Your task to perform on an android device: check android version Image 0: 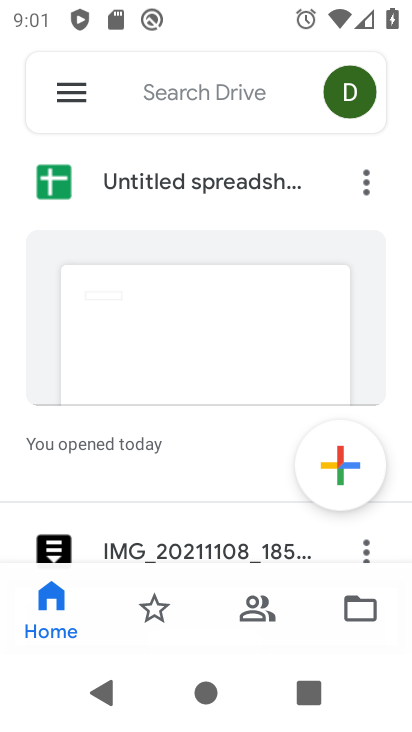
Step 0: drag from (182, 514) to (337, 173)
Your task to perform on an android device: check android version Image 1: 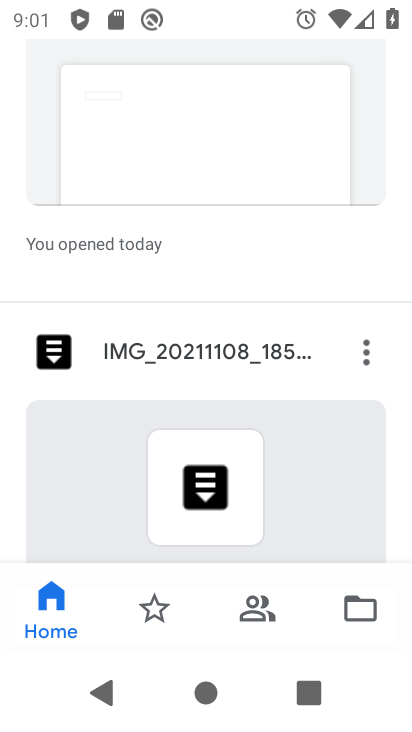
Step 1: drag from (236, 430) to (332, 114)
Your task to perform on an android device: check android version Image 2: 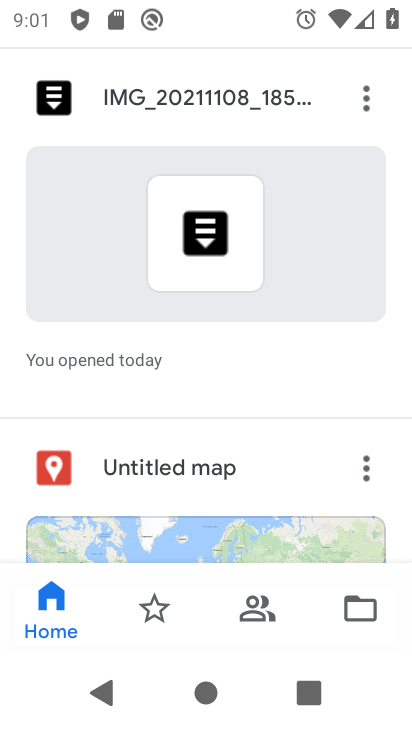
Step 2: drag from (236, 513) to (341, 164)
Your task to perform on an android device: check android version Image 3: 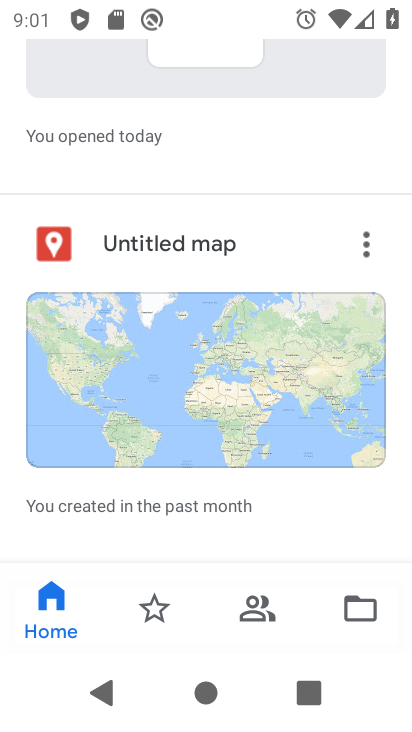
Step 3: drag from (289, 291) to (319, 719)
Your task to perform on an android device: check android version Image 4: 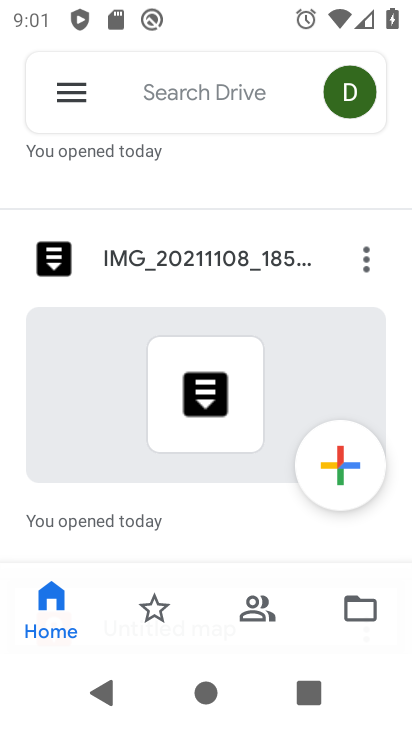
Step 4: drag from (194, 221) to (300, 726)
Your task to perform on an android device: check android version Image 5: 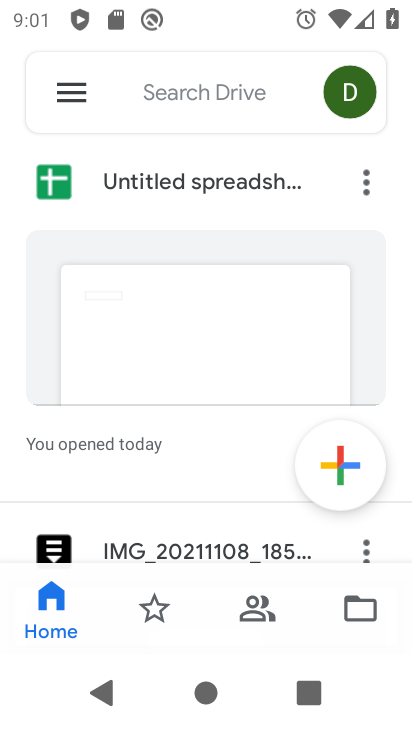
Step 5: press home button
Your task to perform on an android device: check android version Image 6: 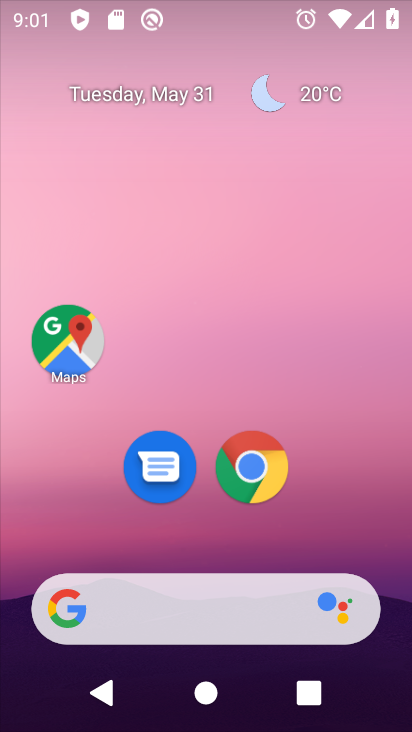
Step 6: drag from (181, 486) to (222, 7)
Your task to perform on an android device: check android version Image 7: 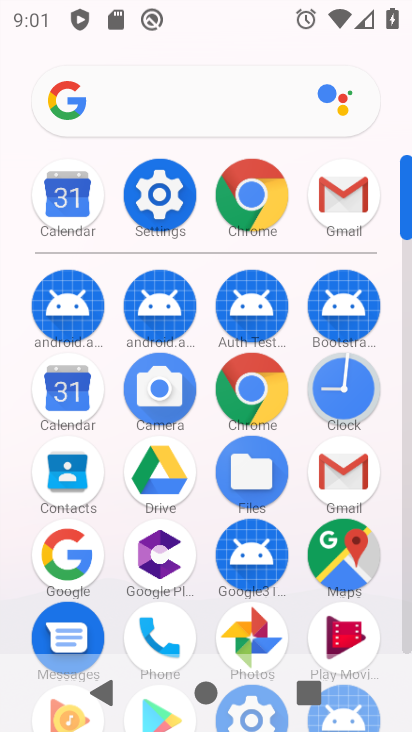
Step 7: click (156, 185)
Your task to perform on an android device: check android version Image 8: 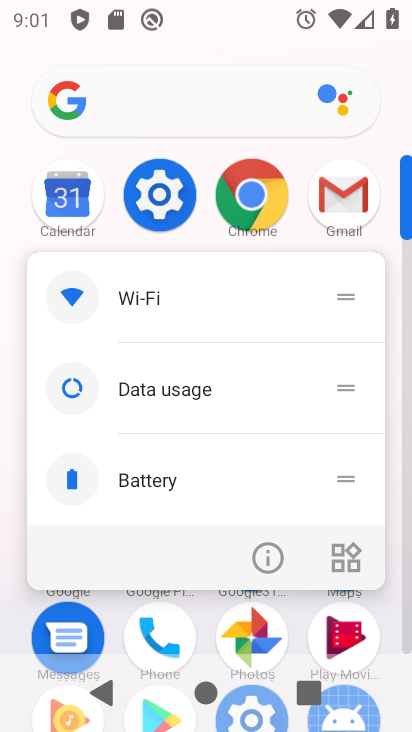
Step 8: click (260, 555)
Your task to perform on an android device: check android version Image 9: 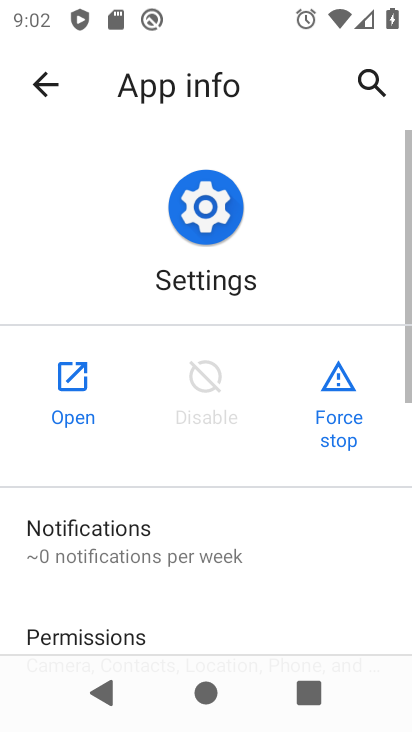
Step 9: click (73, 384)
Your task to perform on an android device: check android version Image 10: 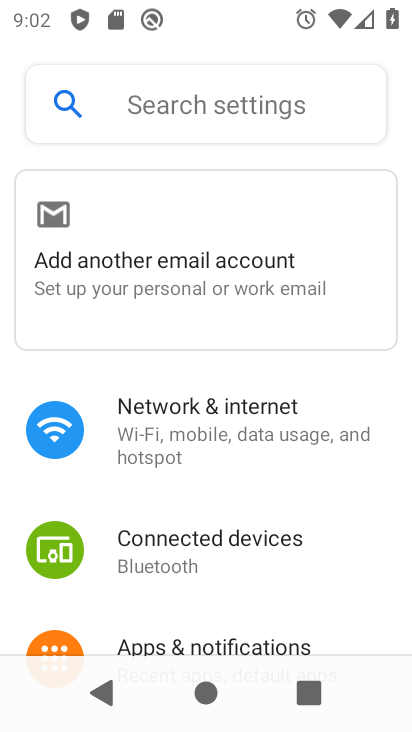
Step 10: drag from (234, 487) to (386, 240)
Your task to perform on an android device: check android version Image 11: 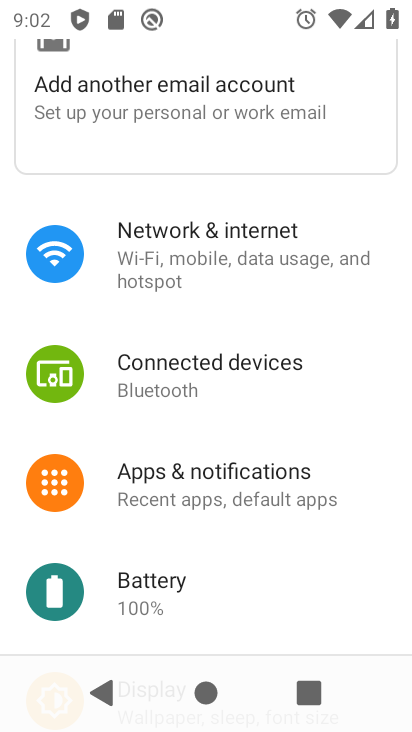
Step 11: drag from (188, 614) to (319, 138)
Your task to perform on an android device: check android version Image 12: 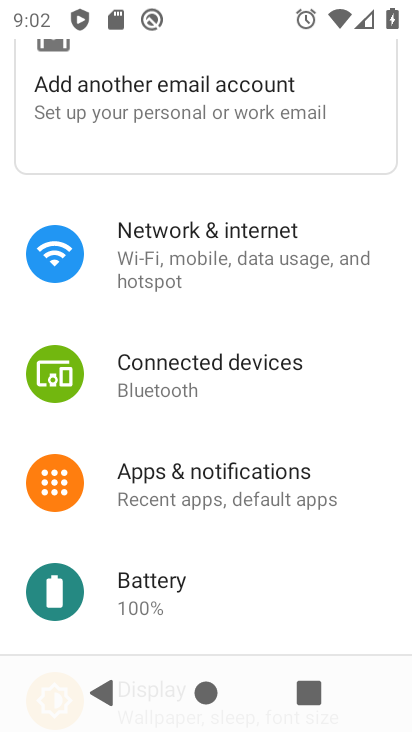
Step 12: drag from (223, 565) to (268, 24)
Your task to perform on an android device: check android version Image 13: 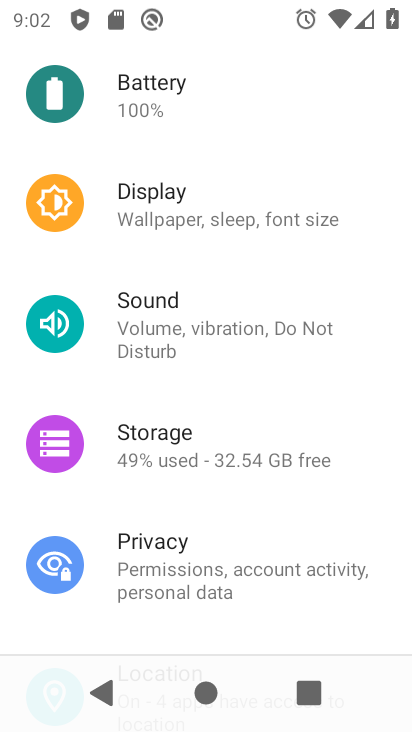
Step 13: drag from (211, 580) to (229, 54)
Your task to perform on an android device: check android version Image 14: 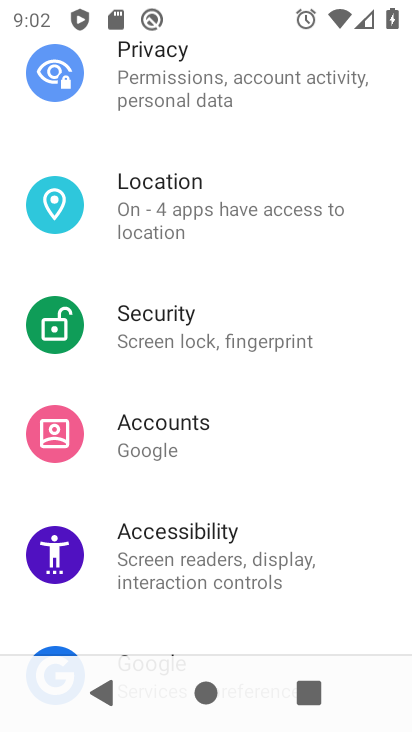
Step 14: drag from (203, 548) to (232, 149)
Your task to perform on an android device: check android version Image 15: 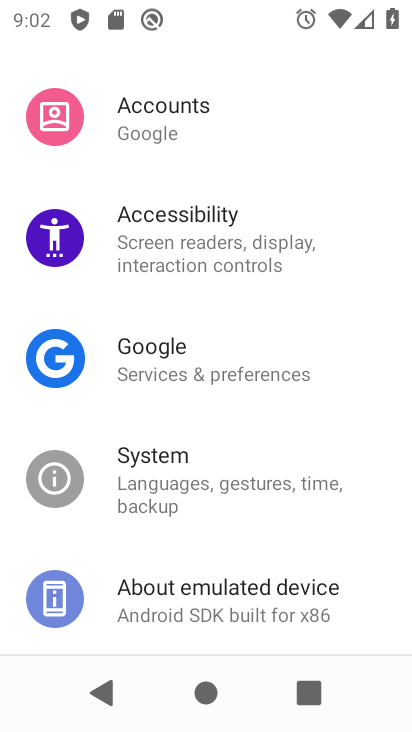
Step 15: click (198, 577)
Your task to perform on an android device: check android version Image 16: 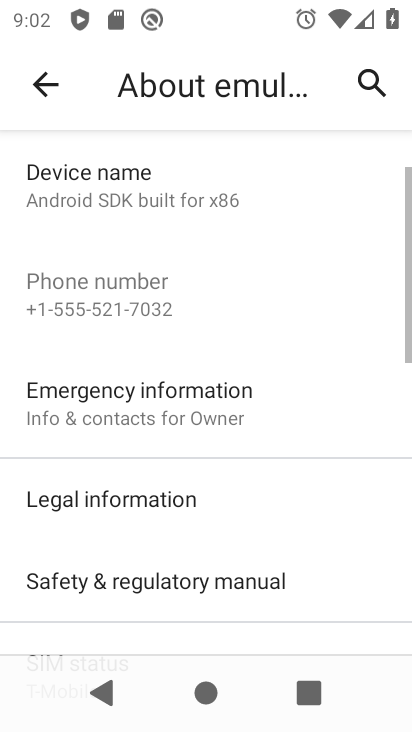
Step 16: drag from (169, 553) to (284, 19)
Your task to perform on an android device: check android version Image 17: 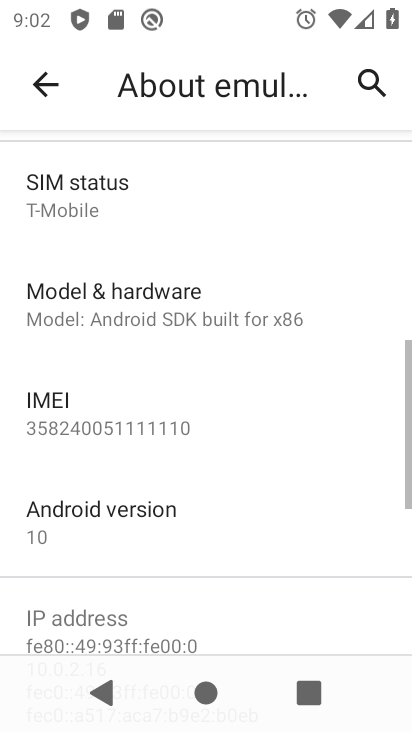
Step 17: click (153, 526)
Your task to perform on an android device: check android version Image 18: 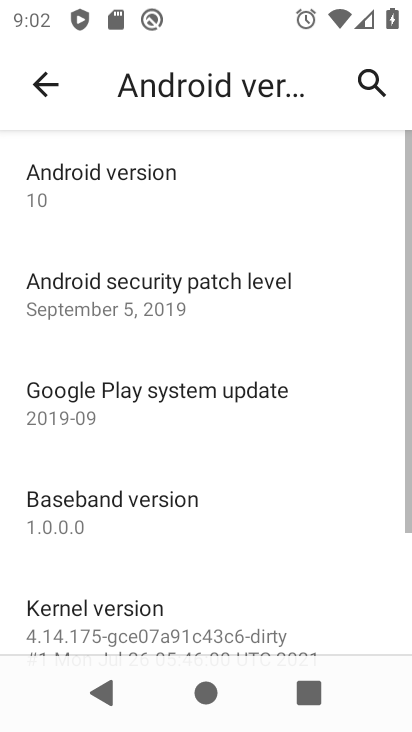
Step 18: drag from (184, 438) to (264, 214)
Your task to perform on an android device: check android version Image 19: 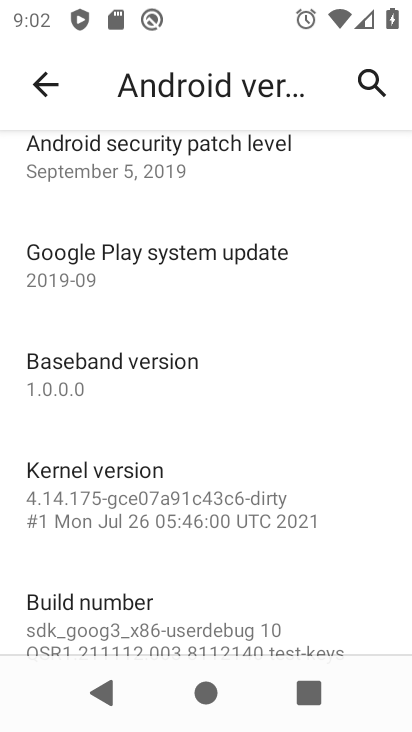
Step 19: drag from (253, 191) to (345, 653)
Your task to perform on an android device: check android version Image 20: 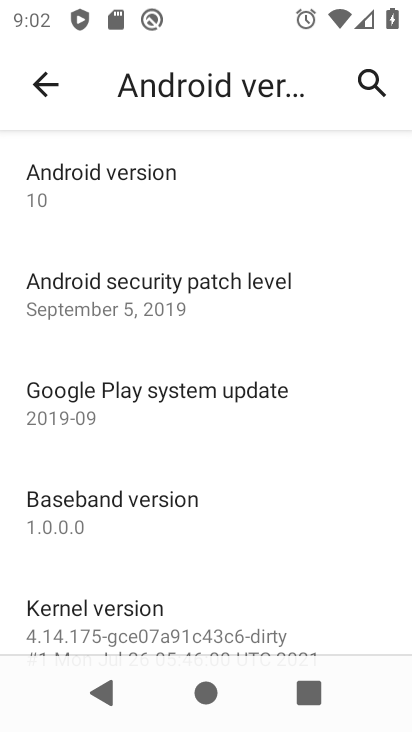
Step 20: click (188, 204)
Your task to perform on an android device: check android version Image 21: 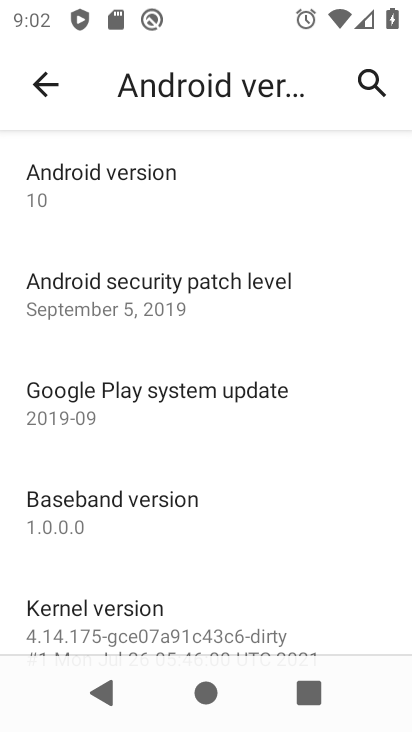
Step 21: click (184, 199)
Your task to perform on an android device: check android version Image 22: 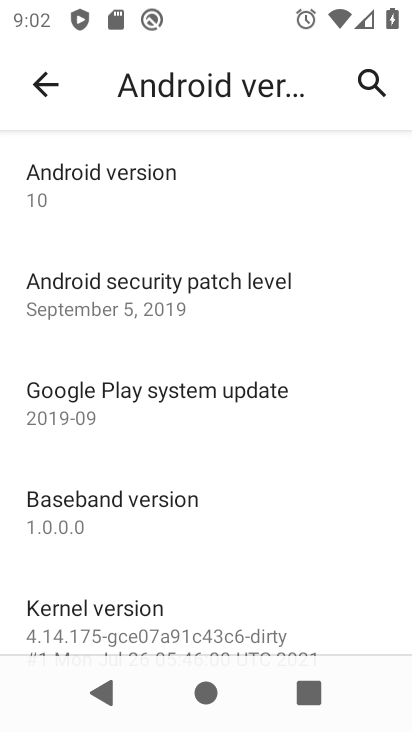
Step 22: task complete